Your task to perform on an android device: check the backup settings in the google photos Image 0: 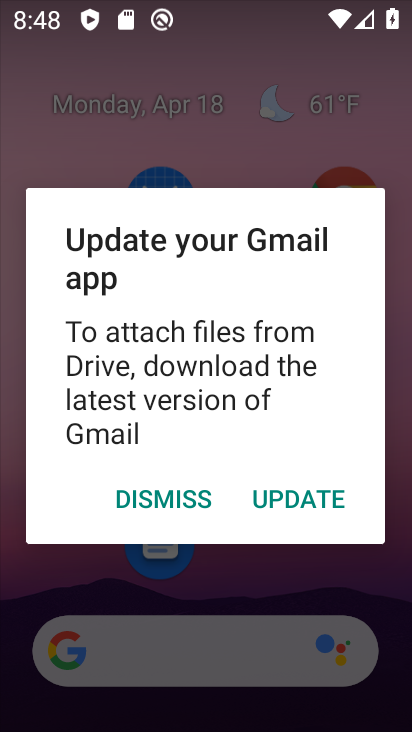
Step 0: click (311, 486)
Your task to perform on an android device: check the backup settings in the google photos Image 1: 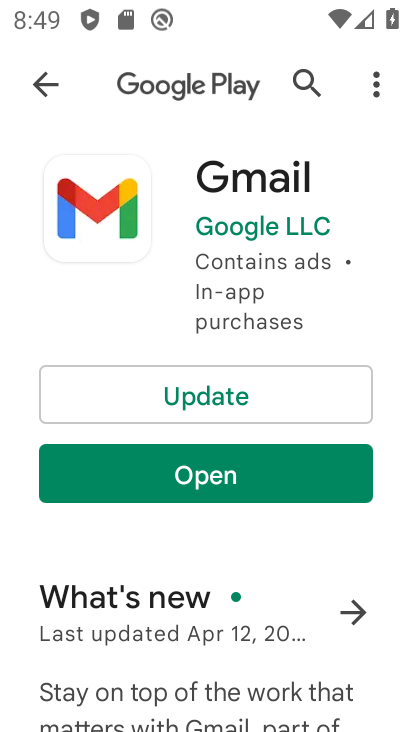
Step 1: click (318, 413)
Your task to perform on an android device: check the backup settings in the google photos Image 2: 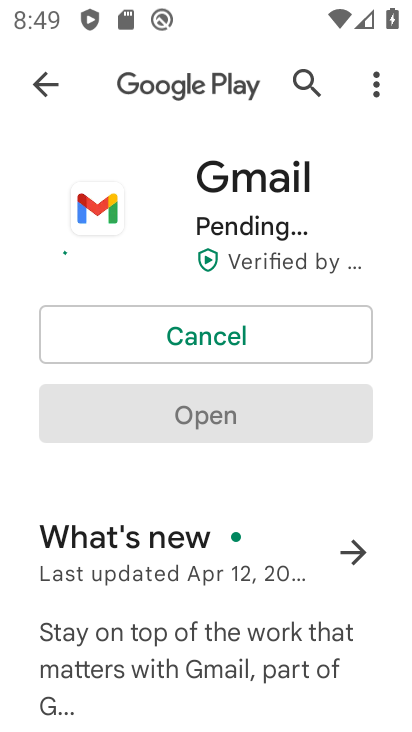
Step 2: press home button
Your task to perform on an android device: check the backup settings in the google photos Image 3: 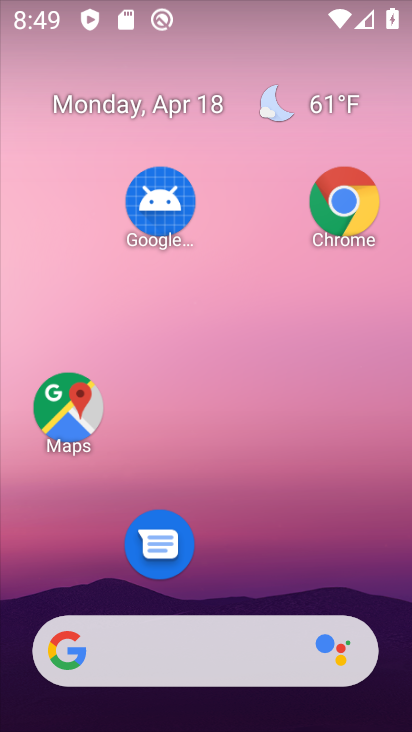
Step 3: drag from (214, 599) to (190, 63)
Your task to perform on an android device: check the backup settings in the google photos Image 4: 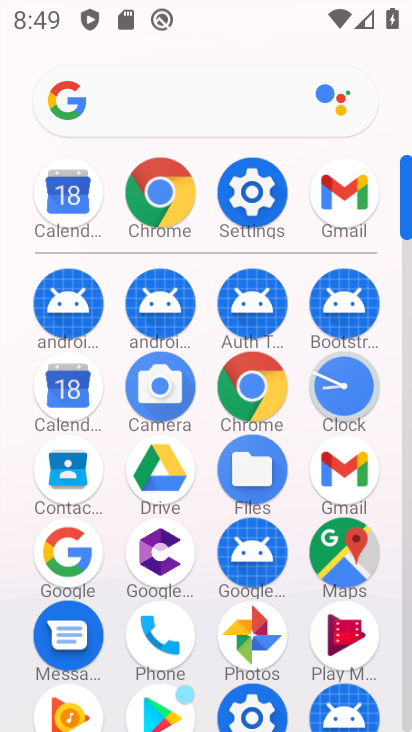
Step 4: click (237, 639)
Your task to perform on an android device: check the backup settings in the google photos Image 5: 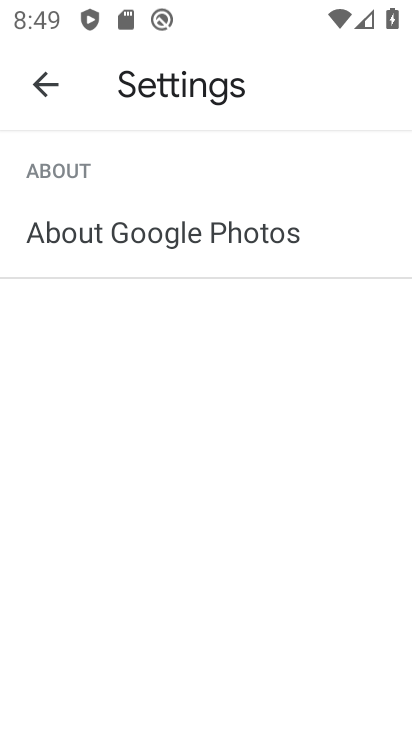
Step 5: click (52, 93)
Your task to perform on an android device: check the backup settings in the google photos Image 6: 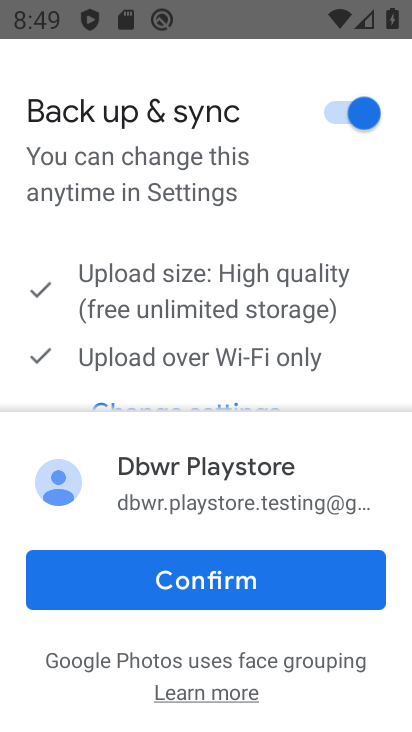
Step 6: drag from (173, 354) to (165, 159)
Your task to perform on an android device: check the backup settings in the google photos Image 7: 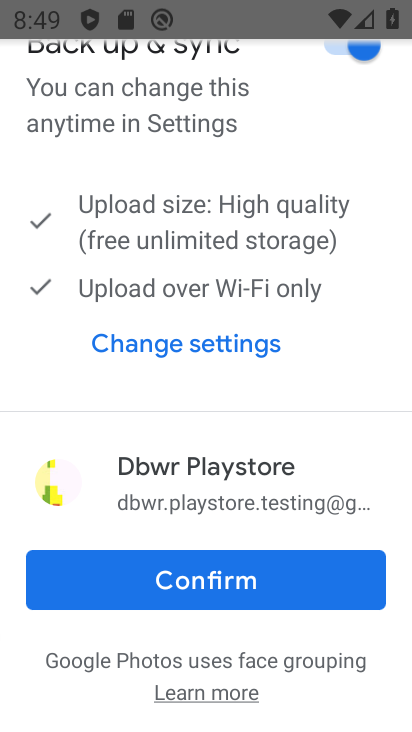
Step 7: click (182, 338)
Your task to perform on an android device: check the backup settings in the google photos Image 8: 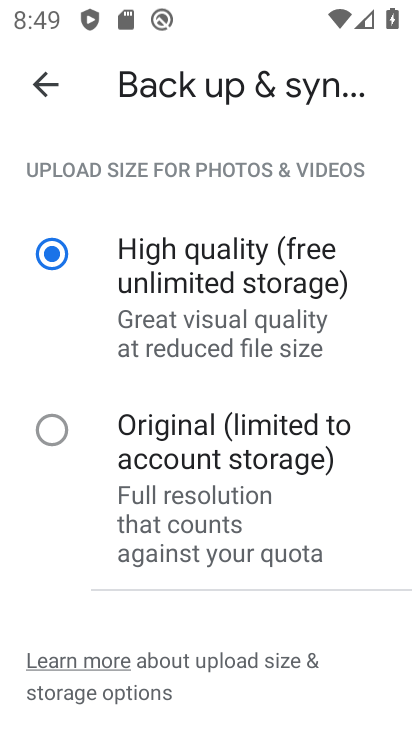
Step 8: task complete